Your task to perform on an android device: Open Google Chrome and open the bookmarks view Image 0: 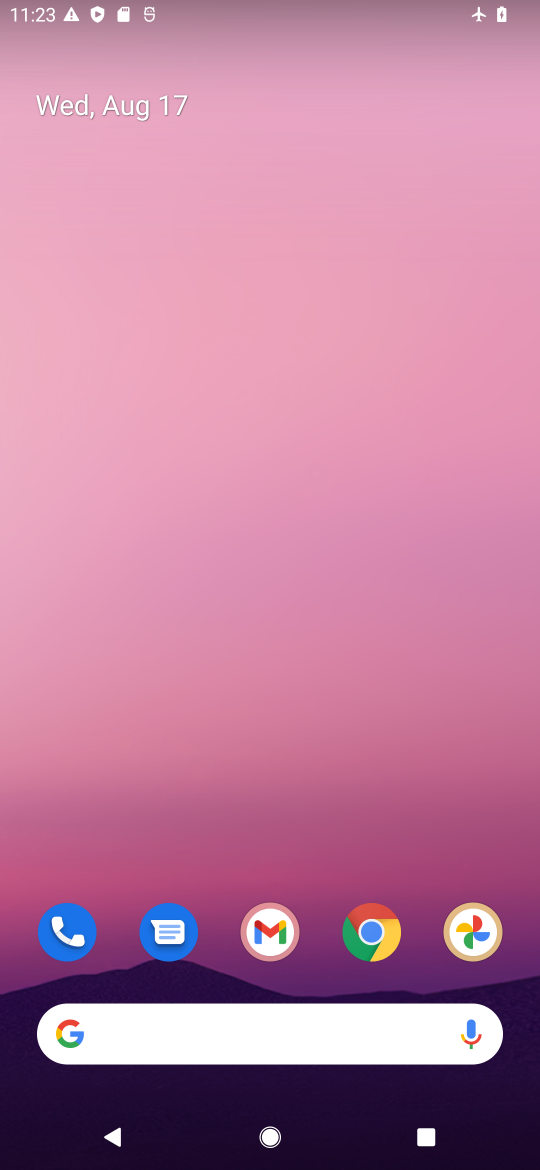
Step 0: click (366, 952)
Your task to perform on an android device: Open Google Chrome and open the bookmarks view Image 1: 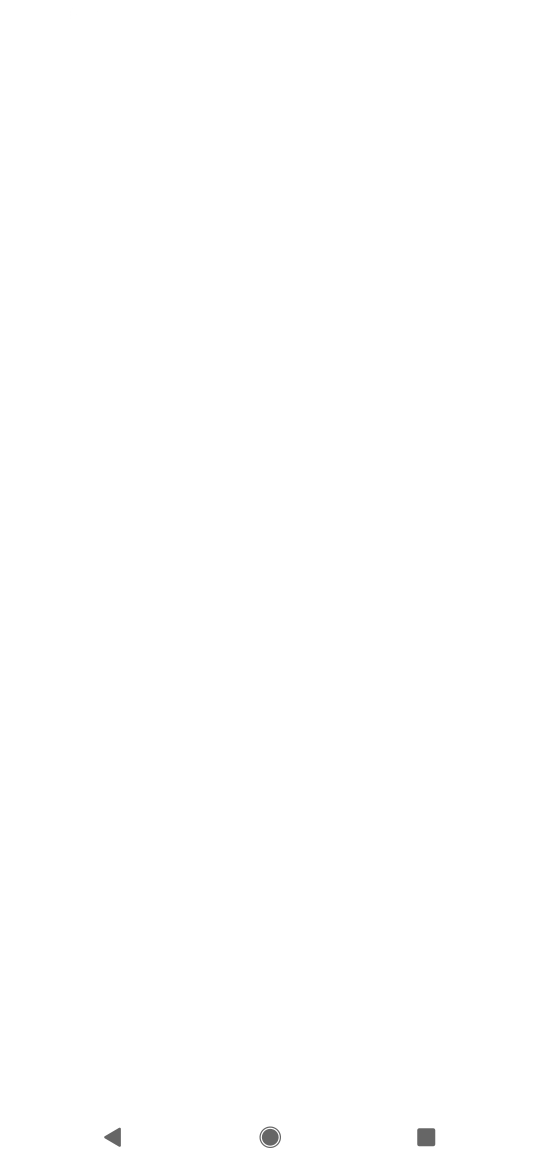
Step 1: task complete